Your task to perform on an android device: find snoozed emails in the gmail app Image 0: 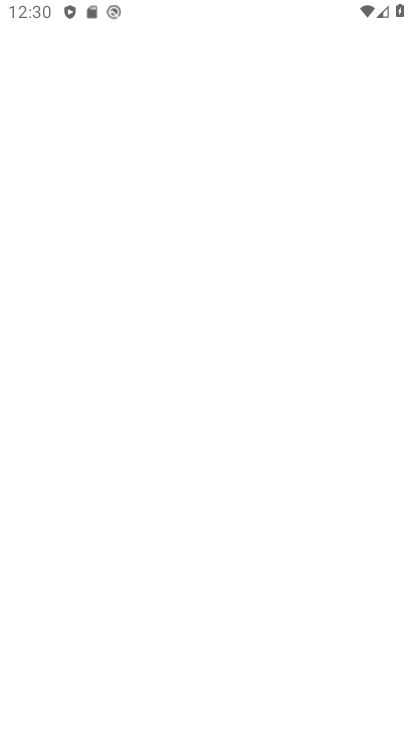
Step 0: press home button
Your task to perform on an android device: find snoozed emails in the gmail app Image 1: 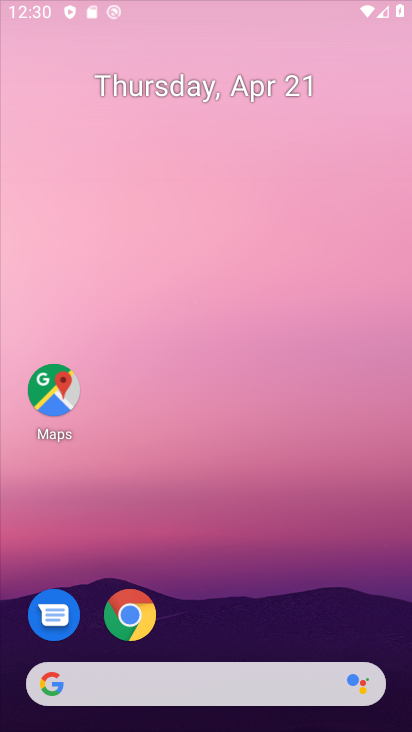
Step 1: drag from (267, 587) to (233, 23)
Your task to perform on an android device: find snoozed emails in the gmail app Image 2: 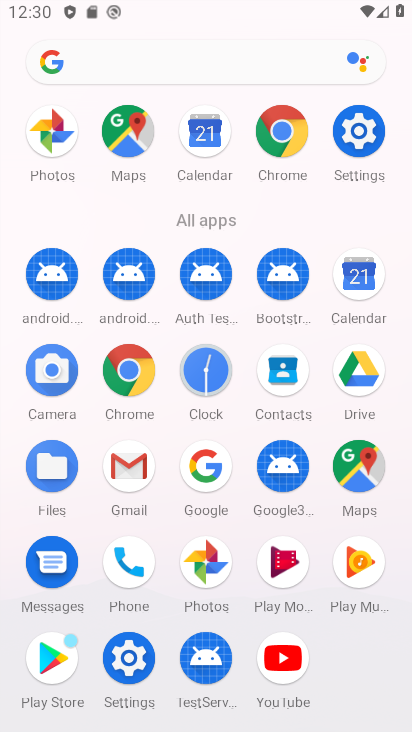
Step 2: click (136, 472)
Your task to perform on an android device: find snoozed emails in the gmail app Image 3: 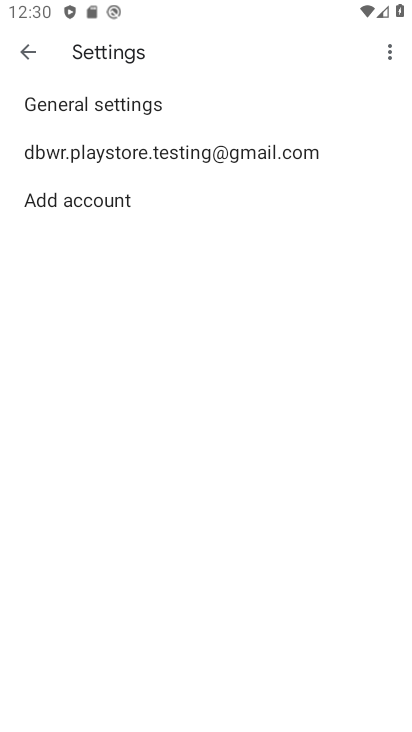
Step 3: click (156, 157)
Your task to perform on an android device: find snoozed emails in the gmail app Image 4: 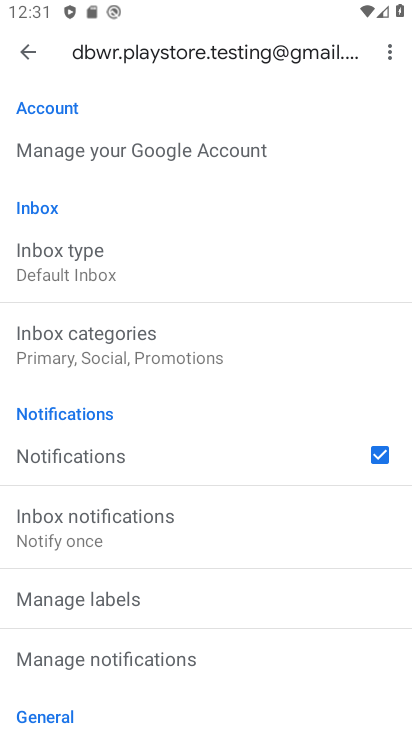
Step 4: click (18, 49)
Your task to perform on an android device: find snoozed emails in the gmail app Image 5: 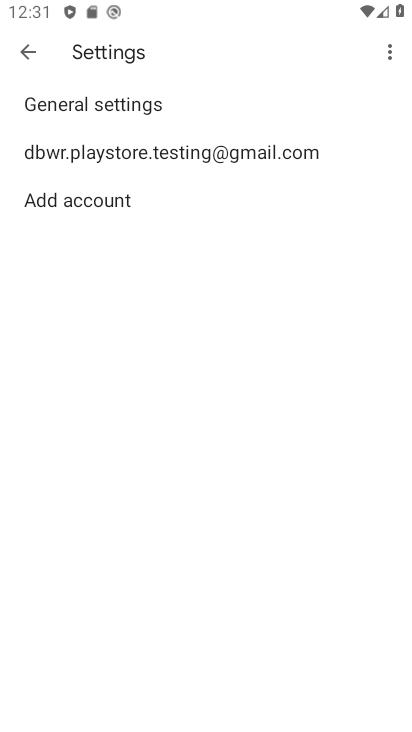
Step 5: click (18, 49)
Your task to perform on an android device: find snoozed emails in the gmail app Image 6: 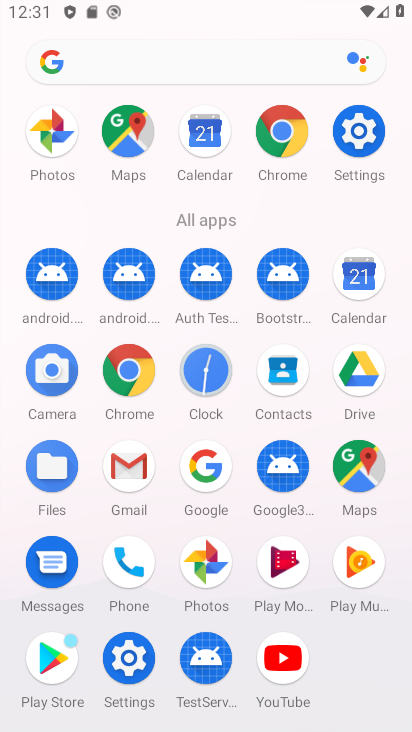
Step 6: click (133, 473)
Your task to perform on an android device: find snoozed emails in the gmail app Image 7: 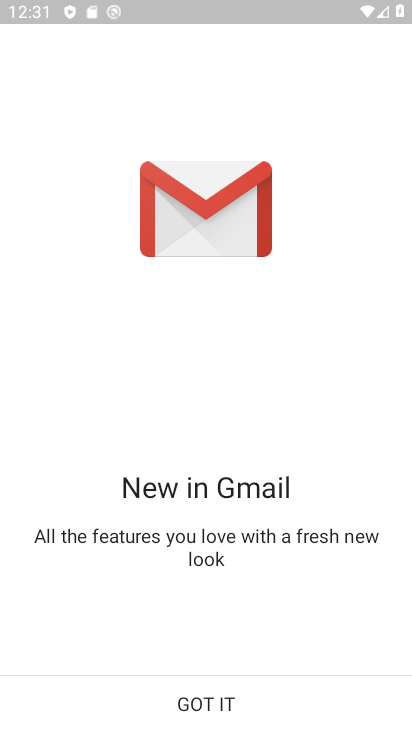
Step 7: click (197, 697)
Your task to perform on an android device: find snoozed emails in the gmail app Image 8: 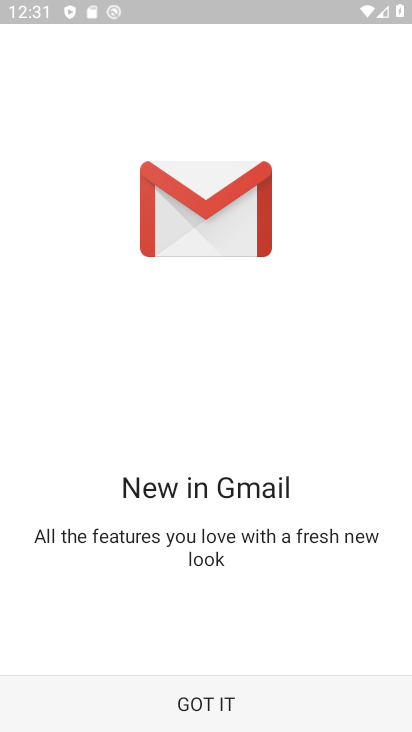
Step 8: click (197, 697)
Your task to perform on an android device: find snoozed emails in the gmail app Image 9: 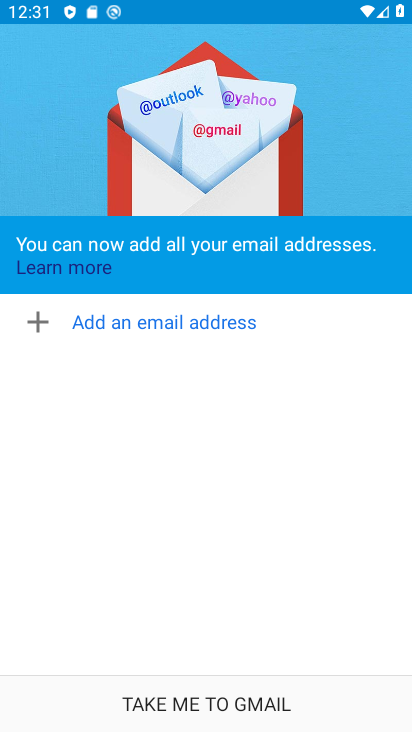
Step 9: click (197, 697)
Your task to perform on an android device: find snoozed emails in the gmail app Image 10: 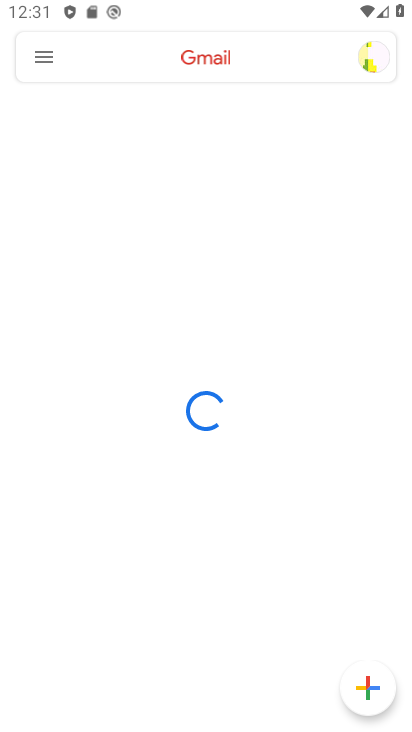
Step 10: click (37, 48)
Your task to perform on an android device: find snoozed emails in the gmail app Image 11: 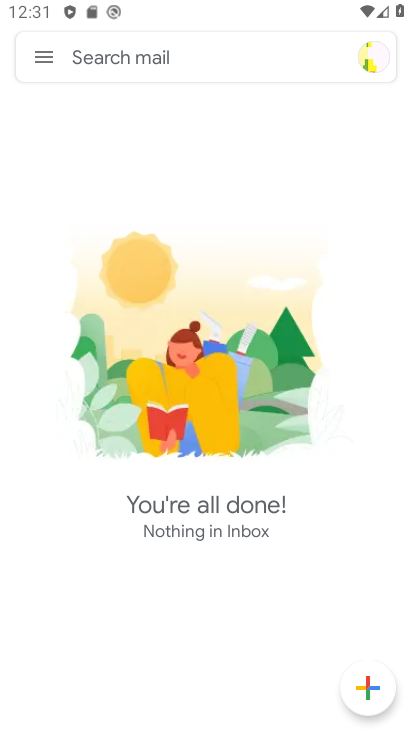
Step 11: click (37, 48)
Your task to perform on an android device: find snoozed emails in the gmail app Image 12: 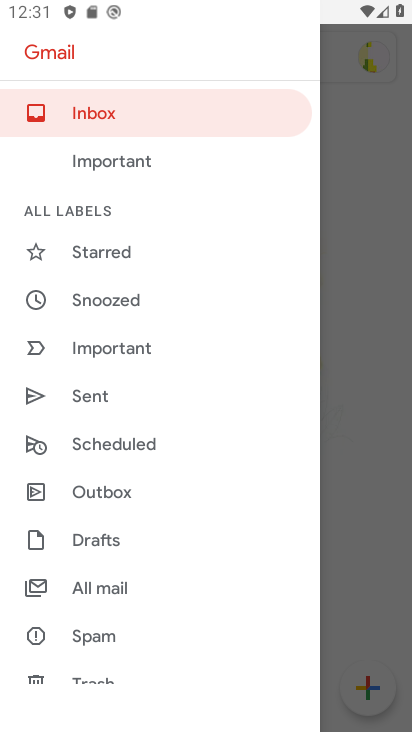
Step 12: click (133, 304)
Your task to perform on an android device: find snoozed emails in the gmail app Image 13: 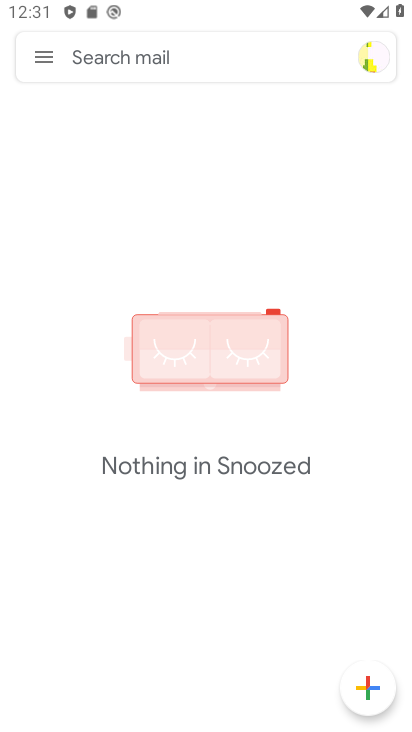
Step 13: task complete